Your task to perform on an android device: Open CNN.com Image 0: 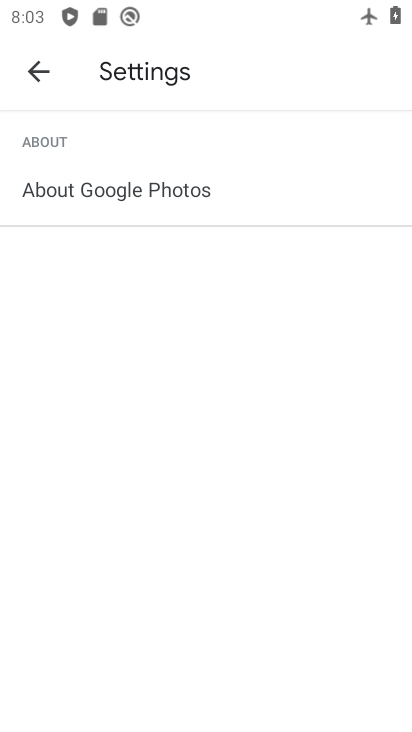
Step 0: press home button
Your task to perform on an android device: Open CNN.com Image 1: 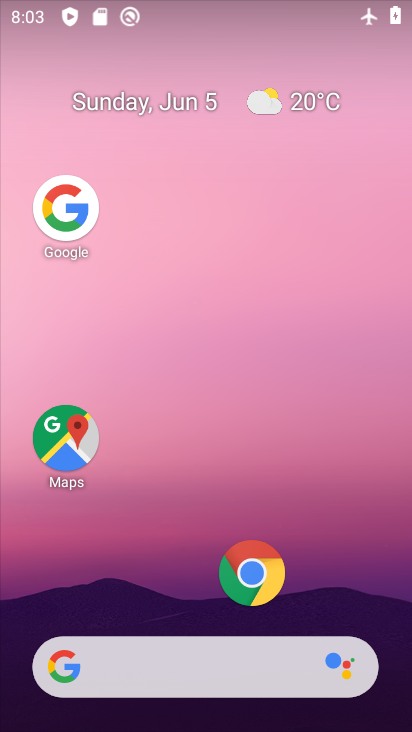
Step 1: click (244, 581)
Your task to perform on an android device: Open CNN.com Image 2: 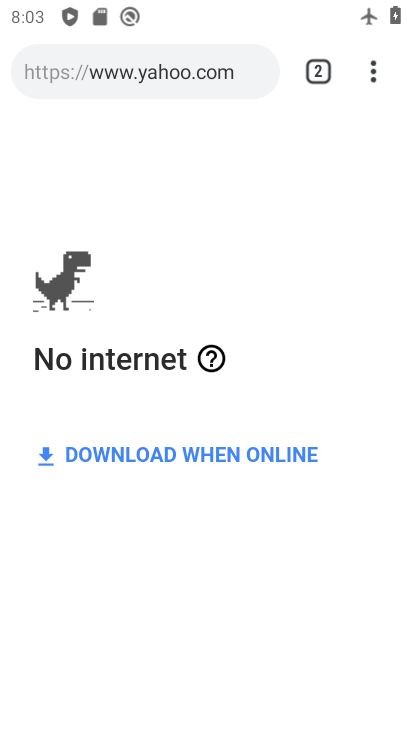
Step 2: click (320, 60)
Your task to perform on an android device: Open CNN.com Image 3: 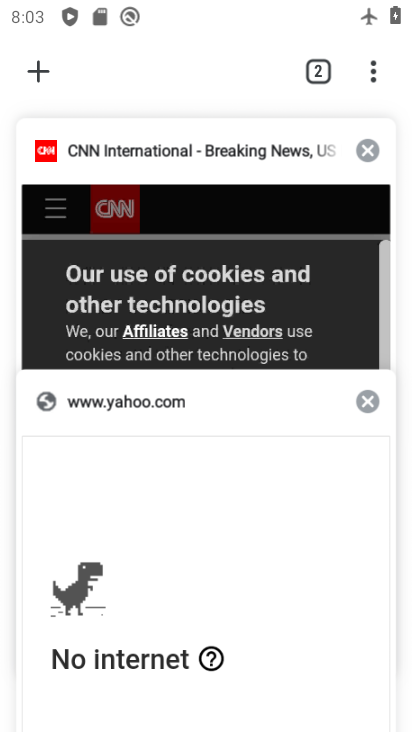
Step 3: click (108, 179)
Your task to perform on an android device: Open CNN.com Image 4: 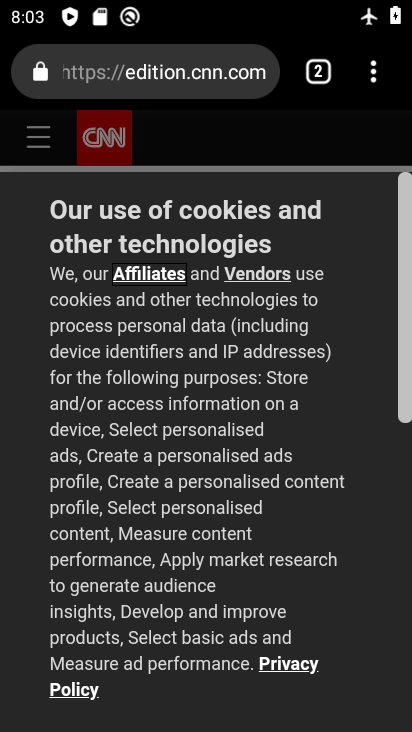
Step 4: drag from (205, 542) to (219, 122)
Your task to perform on an android device: Open CNN.com Image 5: 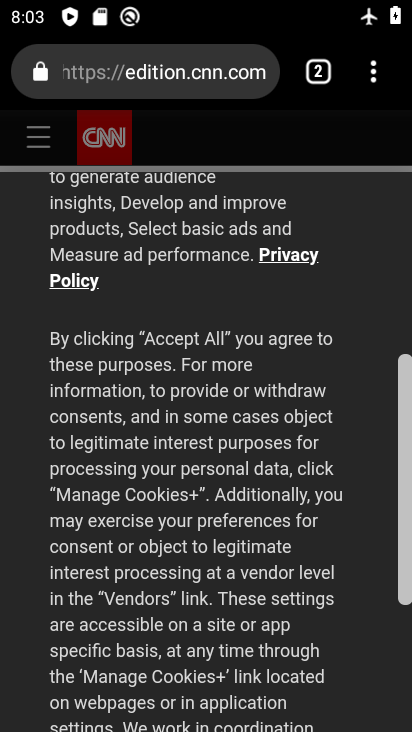
Step 5: drag from (247, 533) to (202, 194)
Your task to perform on an android device: Open CNN.com Image 6: 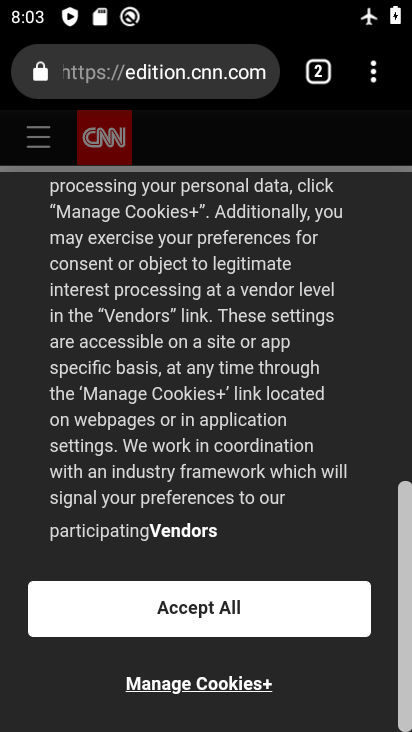
Step 6: click (250, 618)
Your task to perform on an android device: Open CNN.com Image 7: 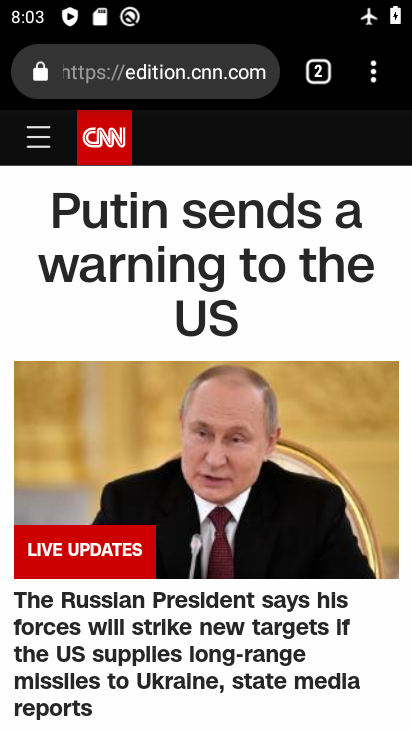
Step 7: task complete